Your task to perform on an android device: Go to notification settings Image 0: 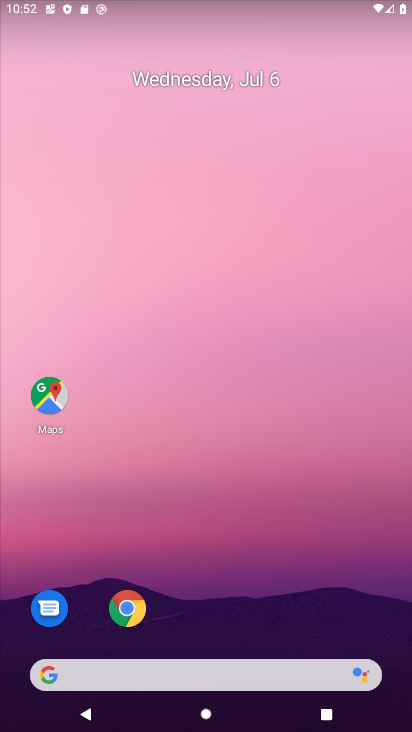
Step 0: drag from (252, 652) to (249, 283)
Your task to perform on an android device: Go to notification settings Image 1: 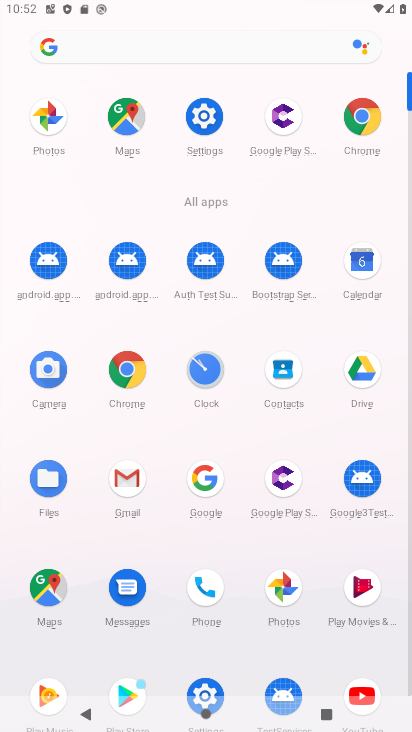
Step 1: click (199, 111)
Your task to perform on an android device: Go to notification settings Image 2: 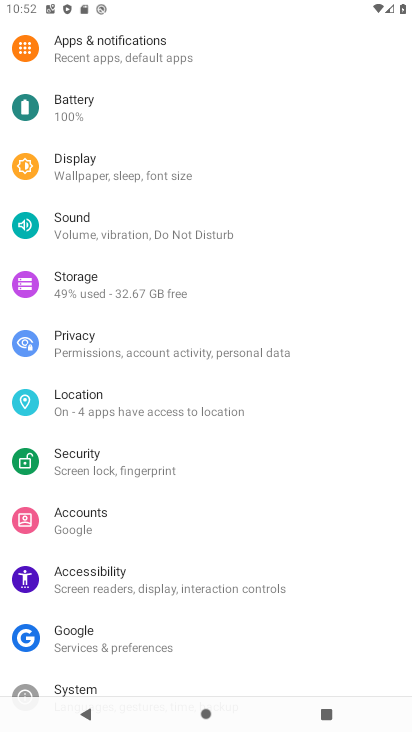
Step 2: click (108, 44)
Your task to perform on an android device: Go to notification settings Image 3: 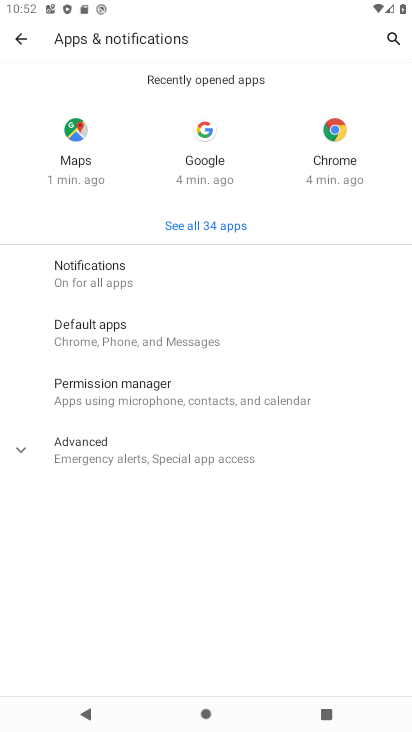
Step 3: click (81, 451)
Your task to perform on an android device: Go to notification settings Image 4: 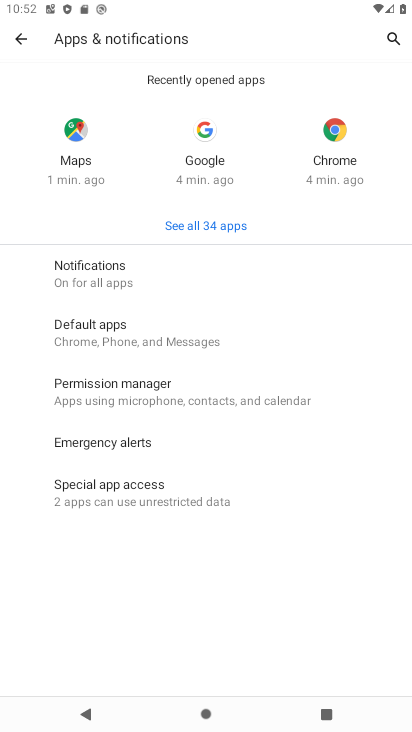
Step 4: task complete